Your task to perform on an android device: add a contact in the contacts app Image 0: 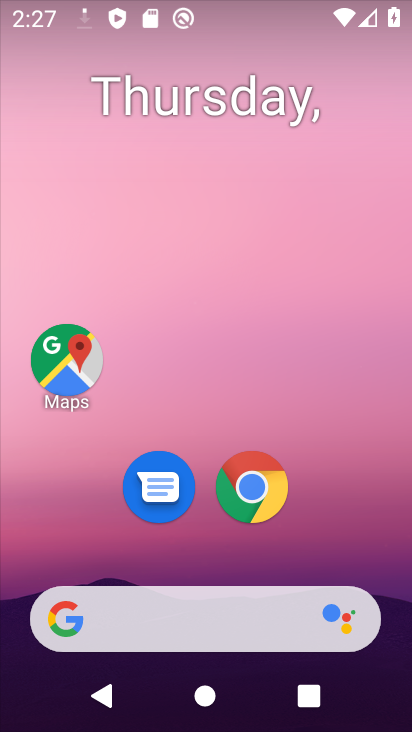
Step 0: drag from (305, 476) to (271, 84)
Your task to perform on an android device: add a contact in the contacts app Image 1: 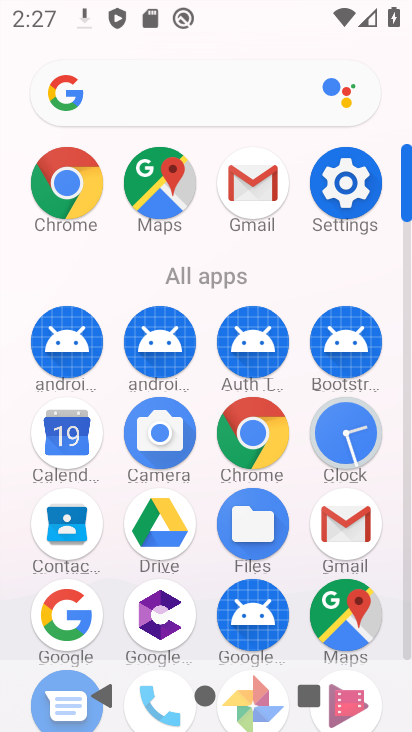
Step 1: click (49, 527)
Your task to perform on an android device: add a contact in the contacts app Image 2: 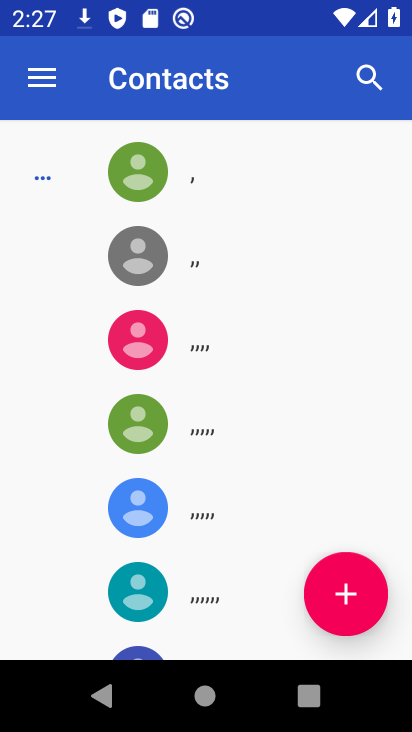
Step 2: click (326, 584)
Your task to perform on an android device: add a contact in the contacts app Image 3: 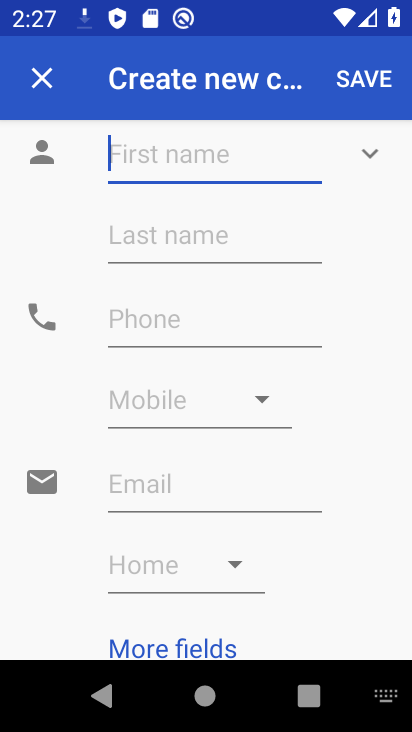
Step 3: click (239, 326)
Your task to perform on an android device: add a contact in the contacts app Image 4: 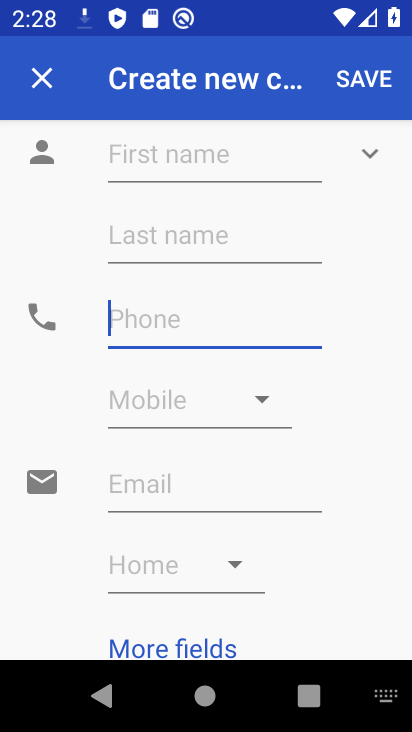
Step 4: type "156786"
Your task to perform on an android device: add a contact in the contacts app Image 5: 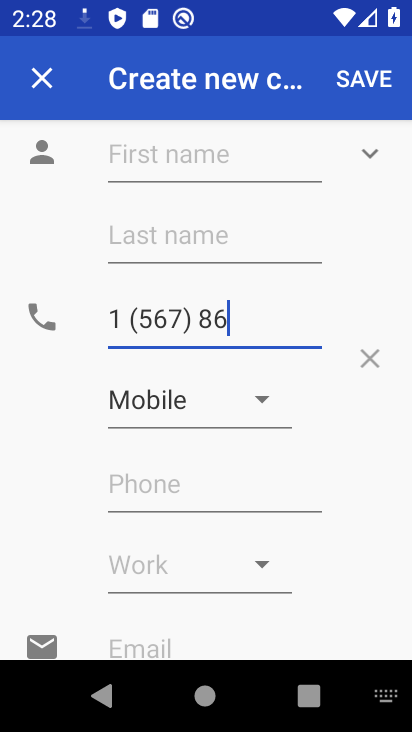
Step 5: click (241, 148)
Your task to perform on an android device: add a contact in the contacts app Image 6: 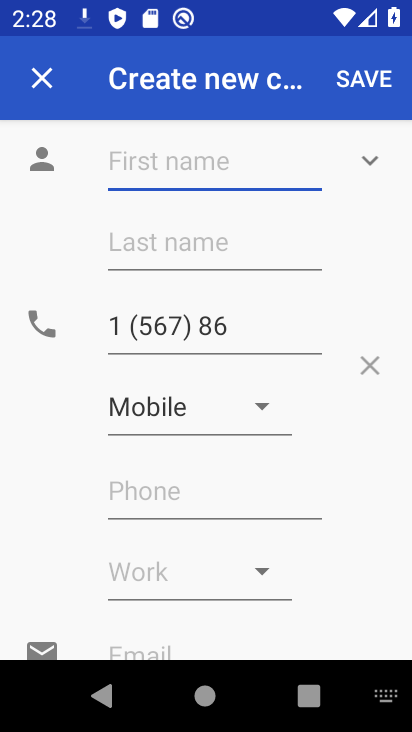
Step 6: type "sid"
Your task to perform on an android device: add a contact in the contacts app Image 7: 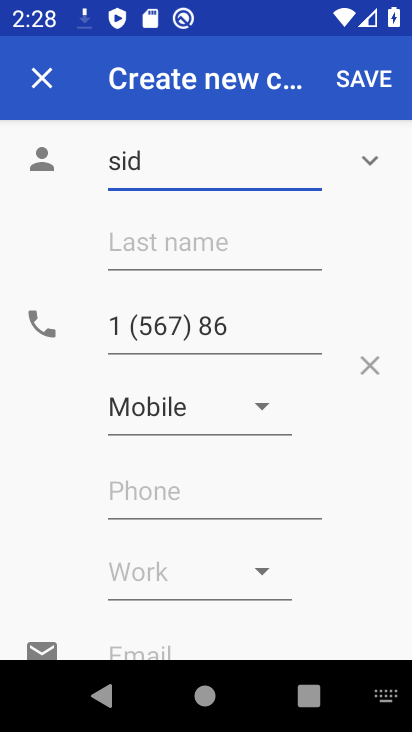
Step 7: click (347, 77)
Your task to perform on an android device: add a contact in the contacts app Image 8: 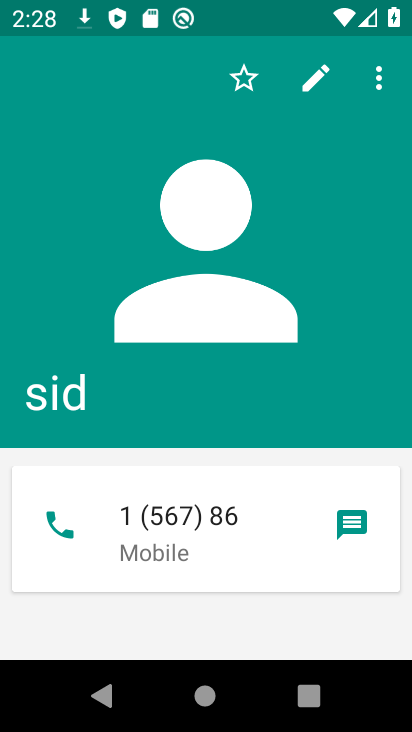
Step 8: task complete